Your task to perform on an android device: Open ESPN.com Image 0: 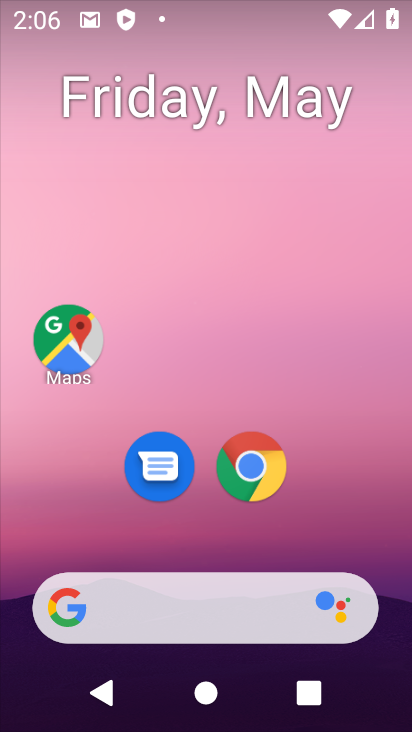
Step 0: drag from (203, 449) to (211, 104)
Your task to perform on an android device: Open ESPN.com Image 1: 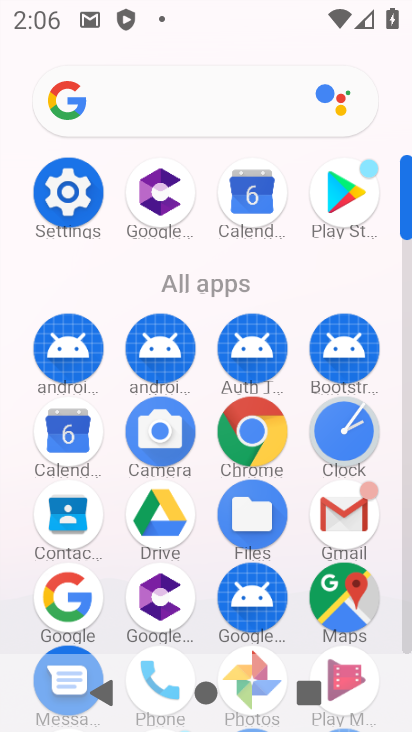
Step 1: drag from (187, 630) to (278, 135)
Your task to perform on an android device: Open ESPN.com Image 2: 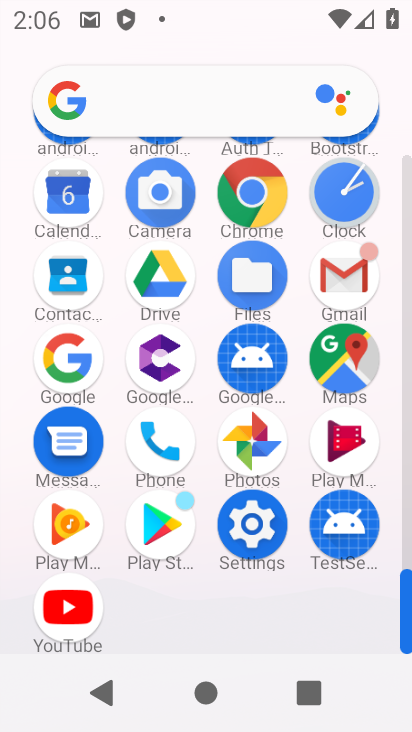
Step 2: click (254, 197)
Your task to perform on an android device: Open ESPN.com Image 3: 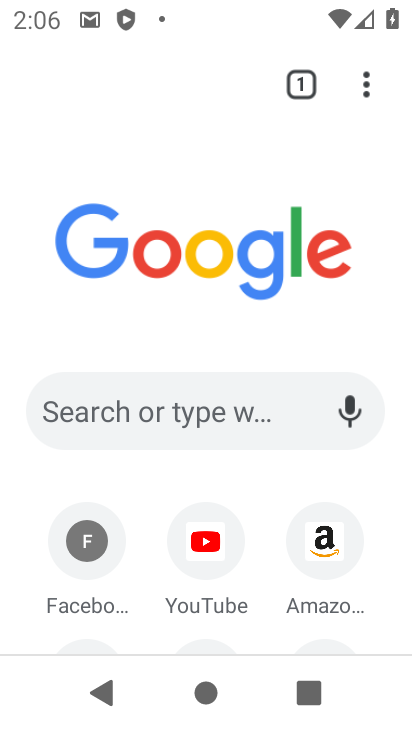
Step 3: drag from (138, 570) to (235, 163)
Your task to perform on an android device: Open ESPN.com Image 4: 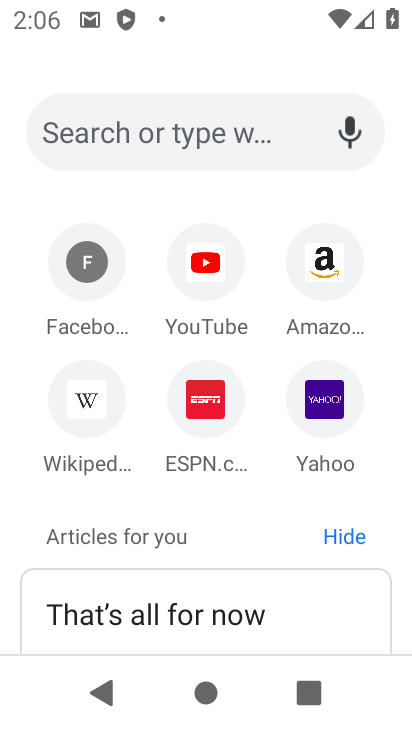
Step 4: click (211, 407)
Your task to perform on an android device: Open ESPN.com Image 5: 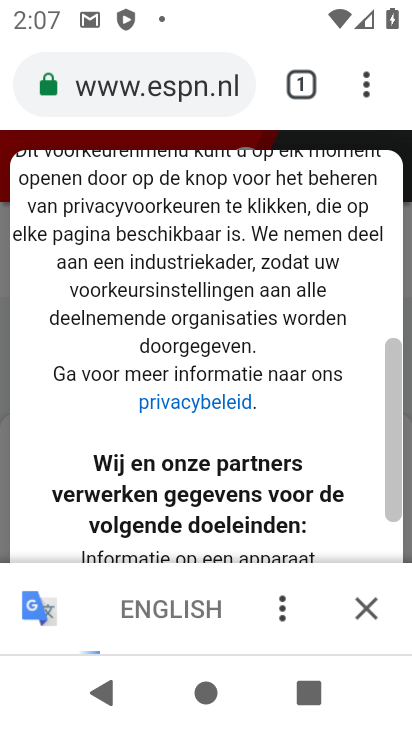
Step 5: task complete